Your task to perform on an android device: allow notifications from all sites in the chrome app Image 0: 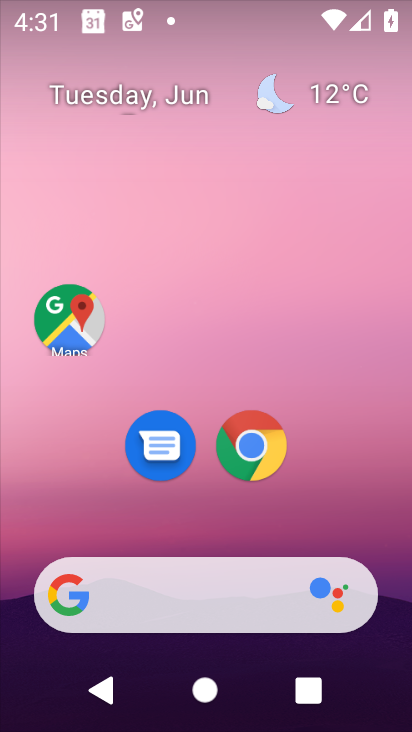
Step 0: drag from (357, 483) to (273, 4)
Your task to perform on an android device: allow notifications from all sites in the chrome app Image 1: 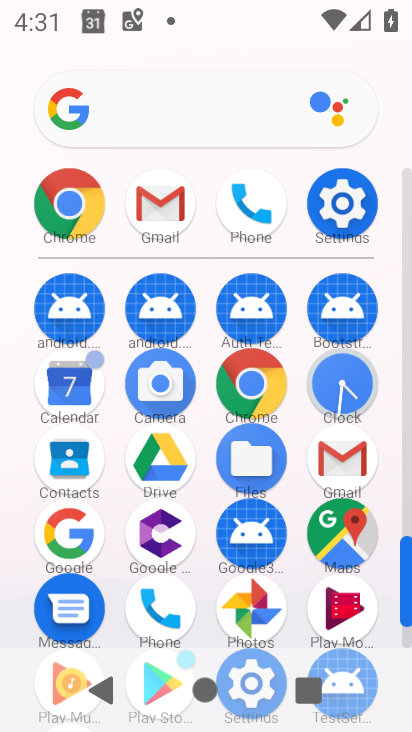
Step 1: click (58, 195)
Your task to perform on an android device: allow notifications from all sites in the chrome app Image 2: 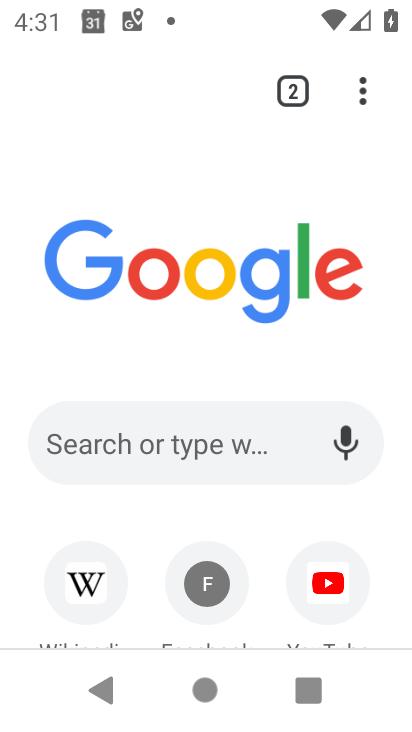
Step 2: drag from (377, 88) to (88, 484)
Your task to perform on an android device: allow notifications from all sites in the chrome app Image 3: 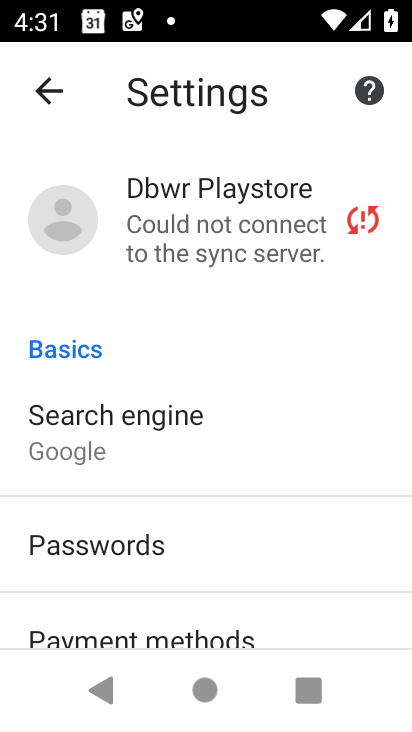
Step 3: drag from (140, 544) to (188, 63)
Your task to perform on an android device: allow notifications from all sites in the chrome app Image 4: 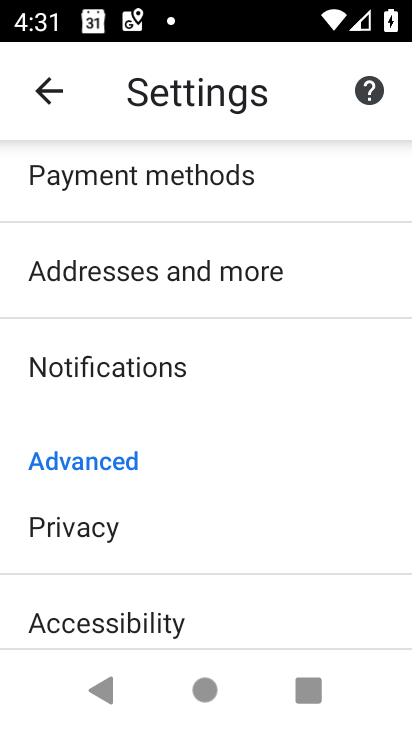
Step 4: drag from (169, 586) to (237, 75)
Your task to perform on an android device: allow notifications from all sites in the chrome app Image 5: 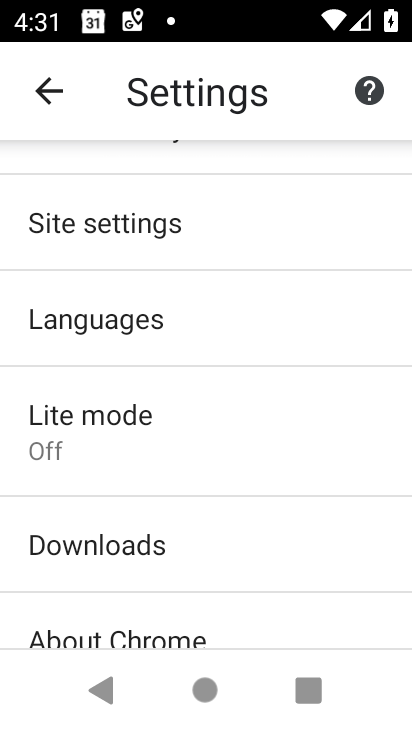
Step 5: click (102, 248)
Your task to perform on an android device: allow notifications from all sites in the chrome app Image 6: 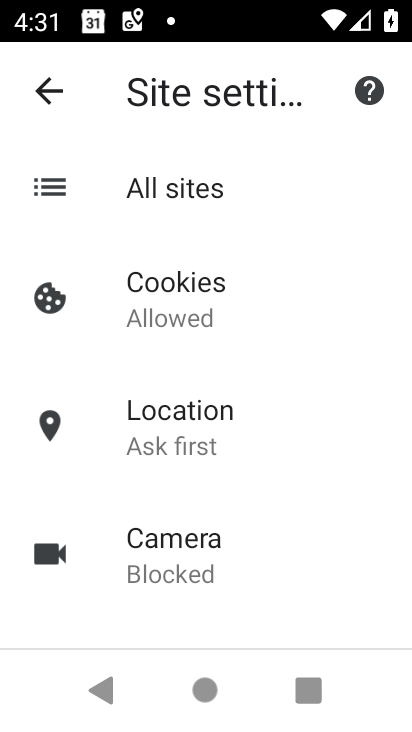
Step 6: drag from (167, 515) to (239, 81)
Your task to perform on an android device: allow notifications from all sites in the chrome app Image 7: 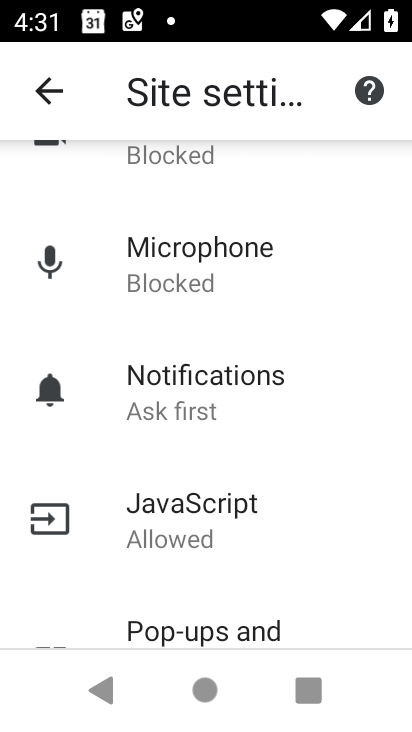
Step 7: drag from (245, 512) to (267, 184)
Your task to perform on an android device: allow notifications from all sites in the chrome app Image 8: 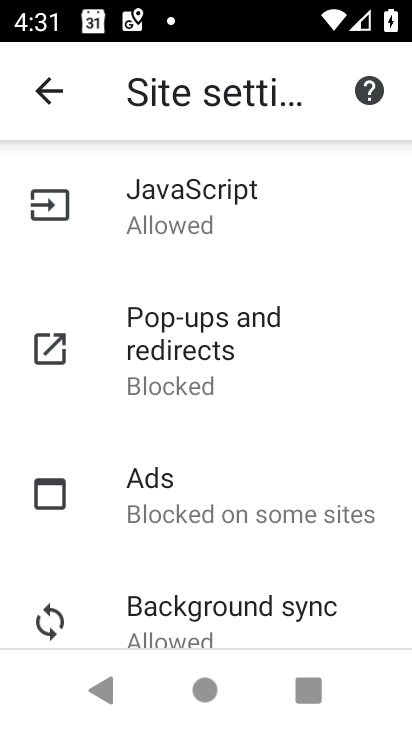
Step 8: drag from (220, 571) to (260, 132)
Your task to perform on an android device: allow notifications from all sites in the chrome app Image 9: 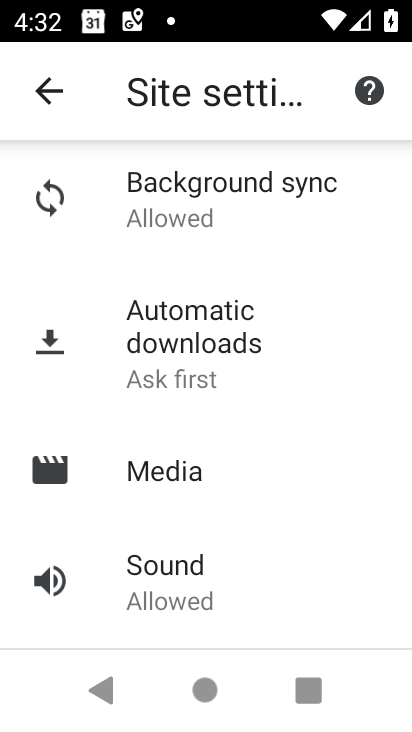
Step 9: drag from (268, 475) to (258, 26)
Your task to perform on an android device: allow notifications from all sites in the chrome app Image 10: 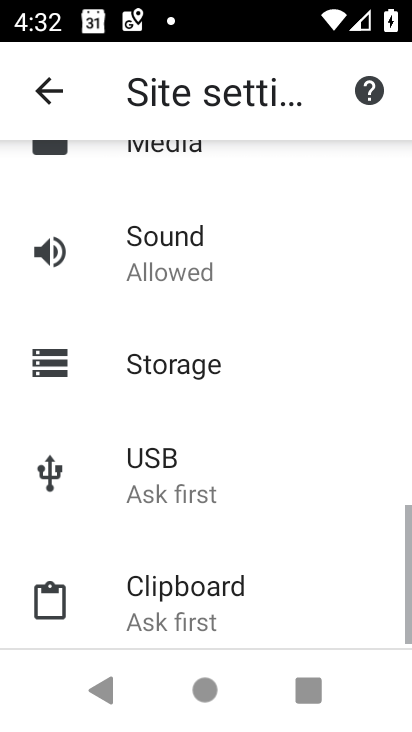
Step 10: drag from (262, 279) to (275, 653)
Your task to perform on an android device: allow notifications from all sites in the chrome app Image 11: 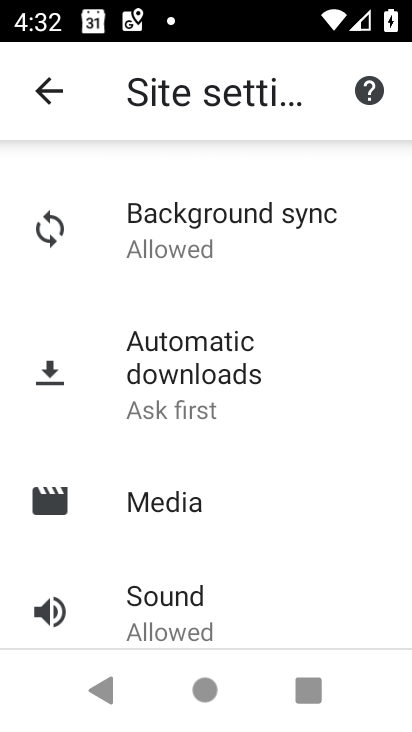
Step 11: drag from (311, 226) to (305, 679)
Your task to perform on an android device: allow notifications from all sites in the chrome app Image 12: 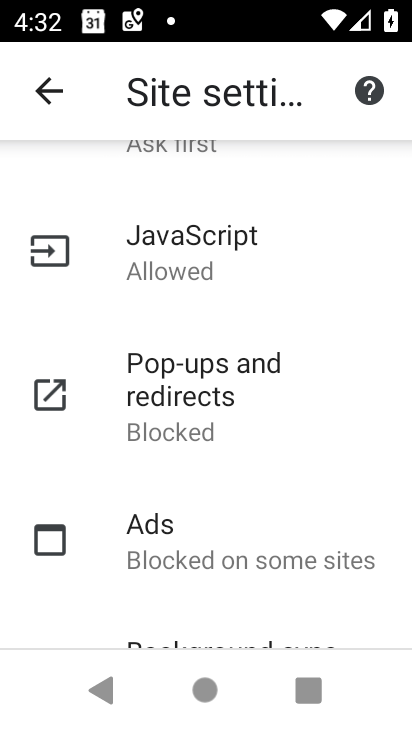
Step 12: drag from (287, 321) to (314, 672)
Your task to perform on an android device: allow notifications from all sites in the chrome app Image 13: 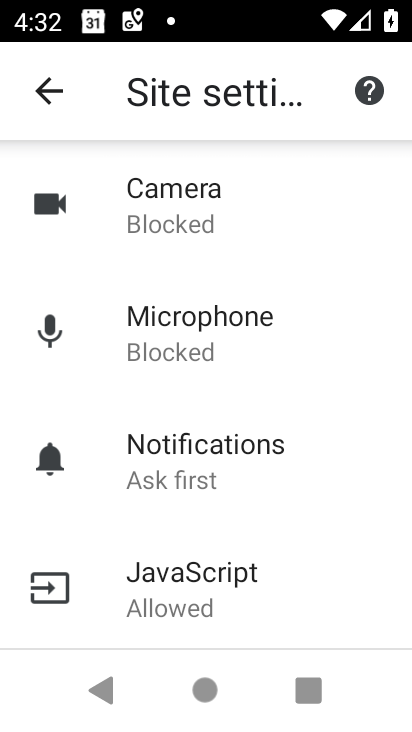
Step 13: drag from (330, 422) to (325, 708)
Your task to perform on an android device: allow notifications from all sites in the chrome app Image 14: 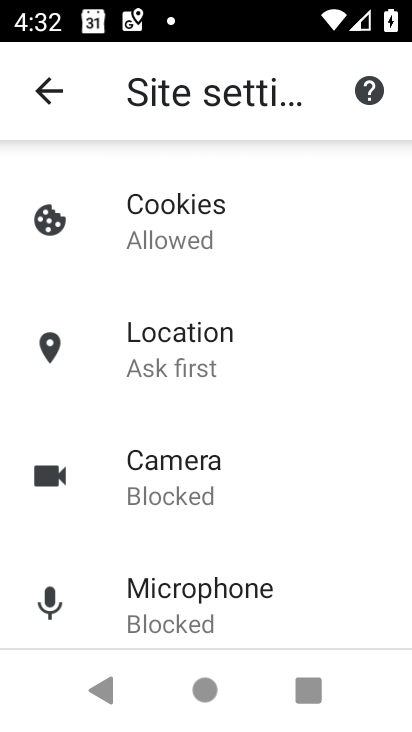
Step 14: drag from (248, 324) to (220, 608)
Your task to perform on an android device: allow notifications from all sites in the chrome app Image 15: 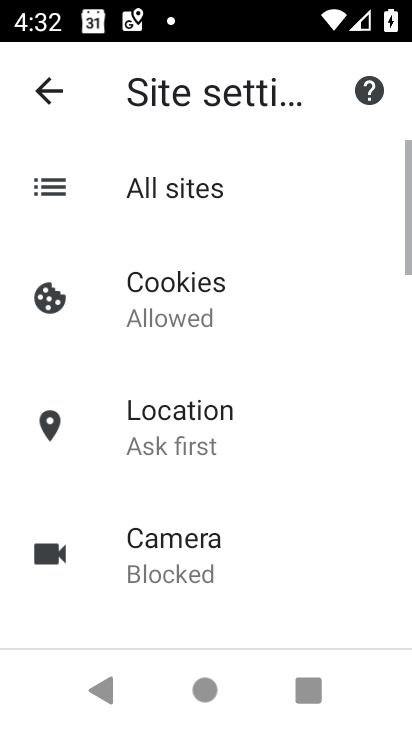
Step 15: drag from (193, 493) to (240, 146)
Your task to perform on an android device: allow notifications from all sites in the chrome app Image 16: 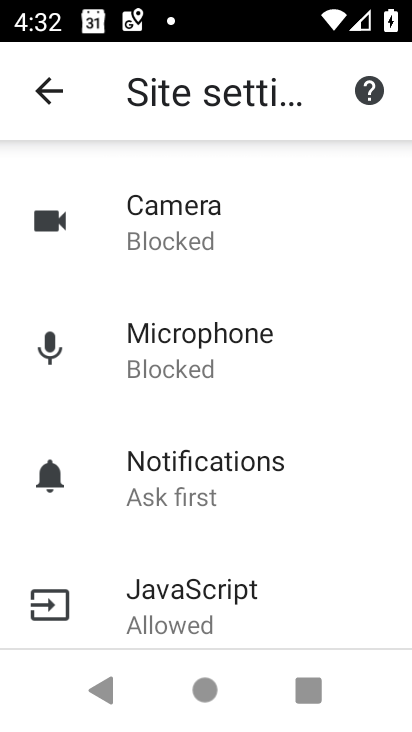
Step 16: click (210, 489)
Your task to perform on an android device: allow notifications from all sites in the chrome app Image 17: 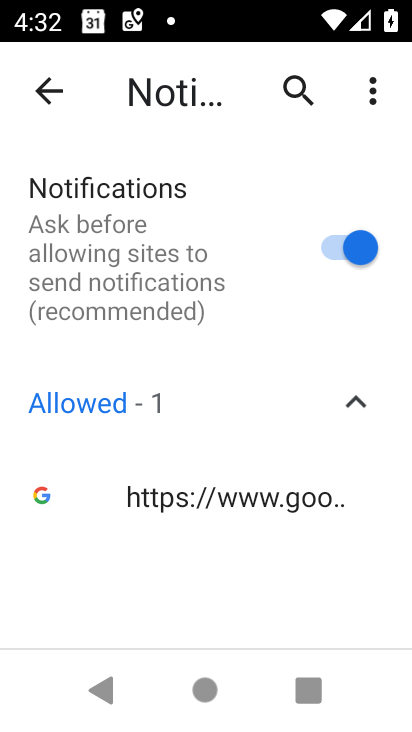
Step 17: task complete